Your task to perform on an android device: delete a single message in the gmail app Image 0: 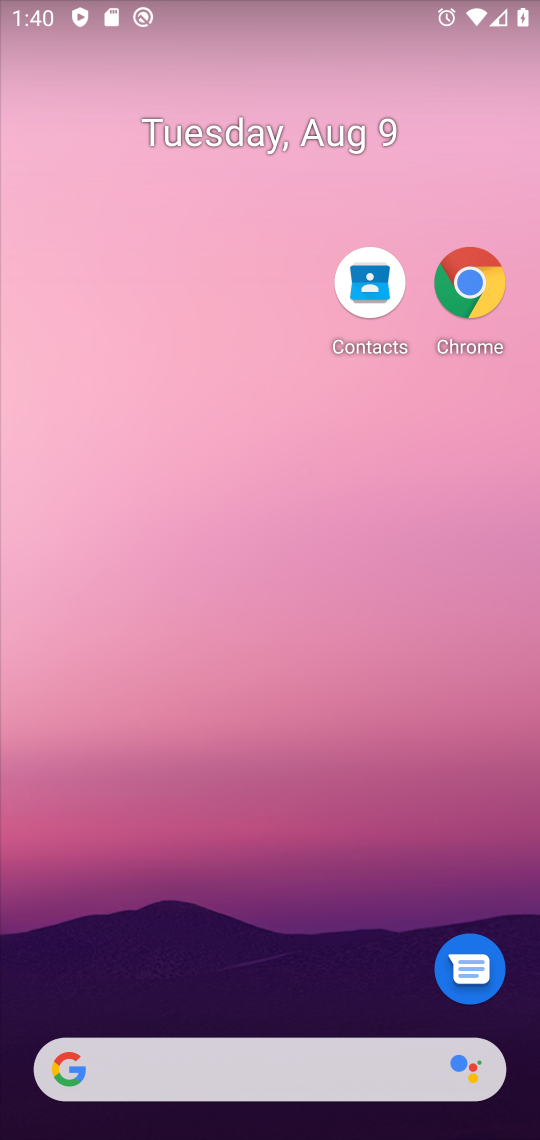
Step 0: drag from (232, 878) to (418, 270)
Your task to perform on an android device: delete a single message in the gmail app Image 1: 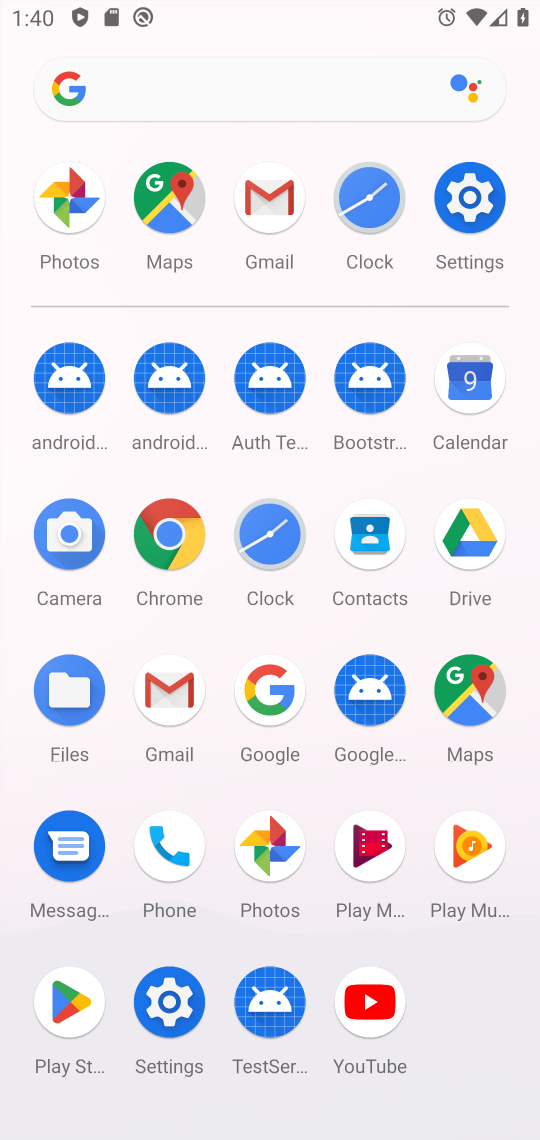
Step 1: click (164, 696)
Your task to perform on an android device: delete a single message in the gmail app Image 2: 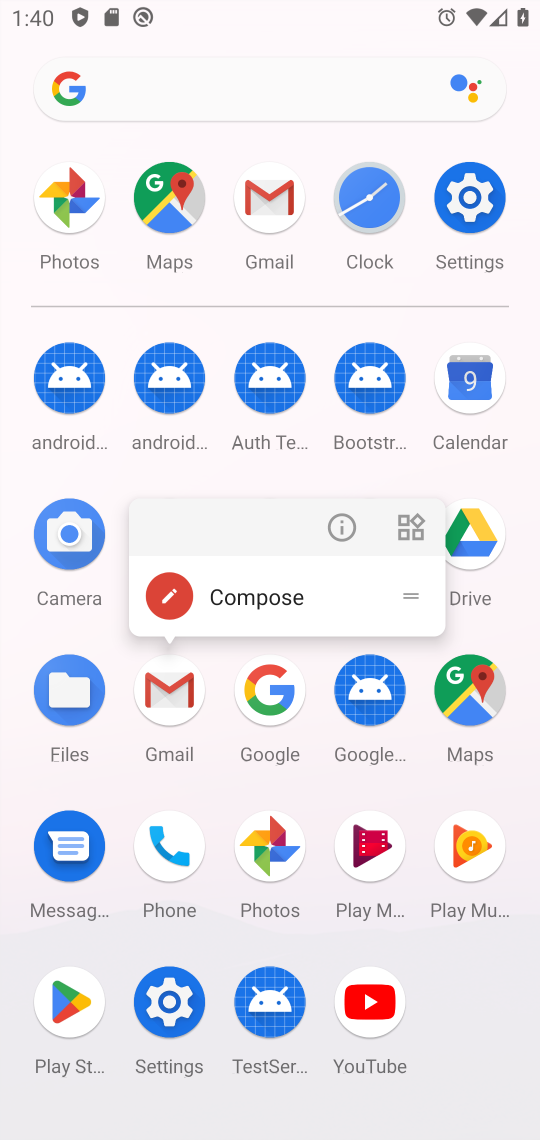
Step 2: click (343, 529)
Your task to perform on an android device: delete a single message in the gmail app Image 3: 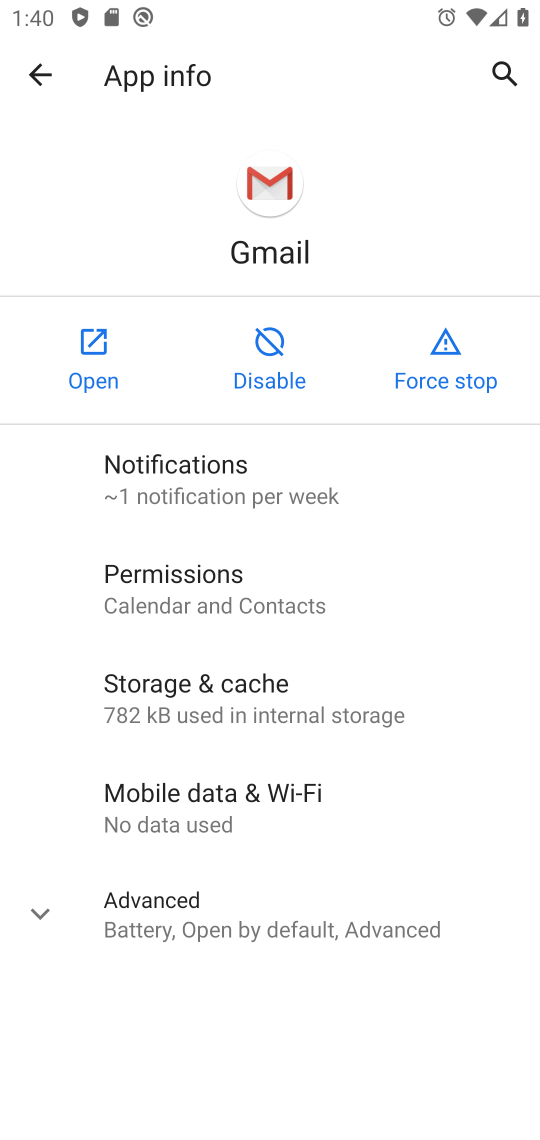
Step 3: click (87, 366)
Your task to perform on an android device: delete a single message in the gmail app Image 4: 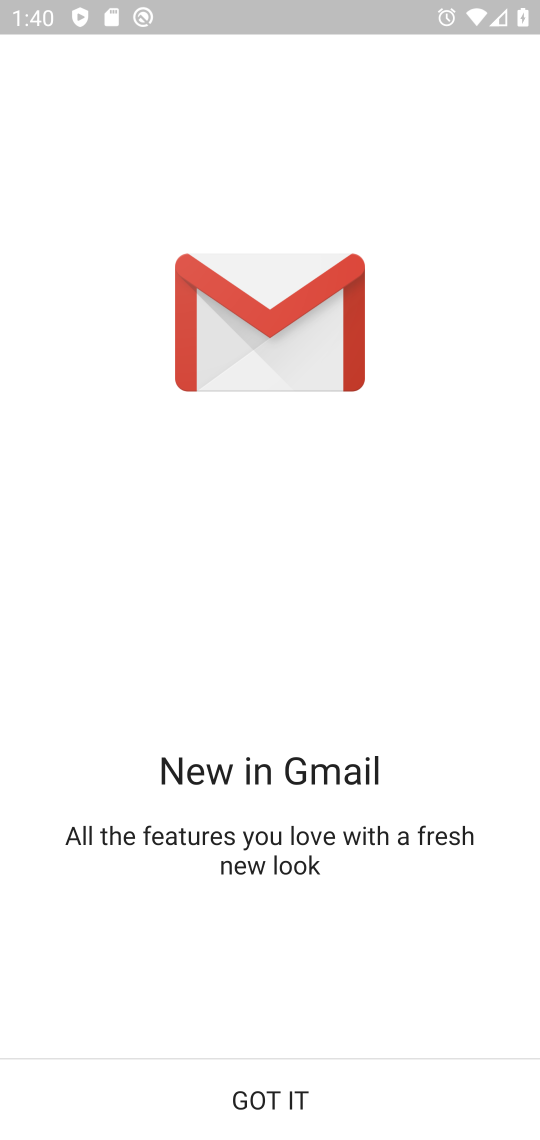
Step 4: drag from (323, 963) to (337, 804)
Your task to perform on an android device: delete a single message in the gmail app Image 5: 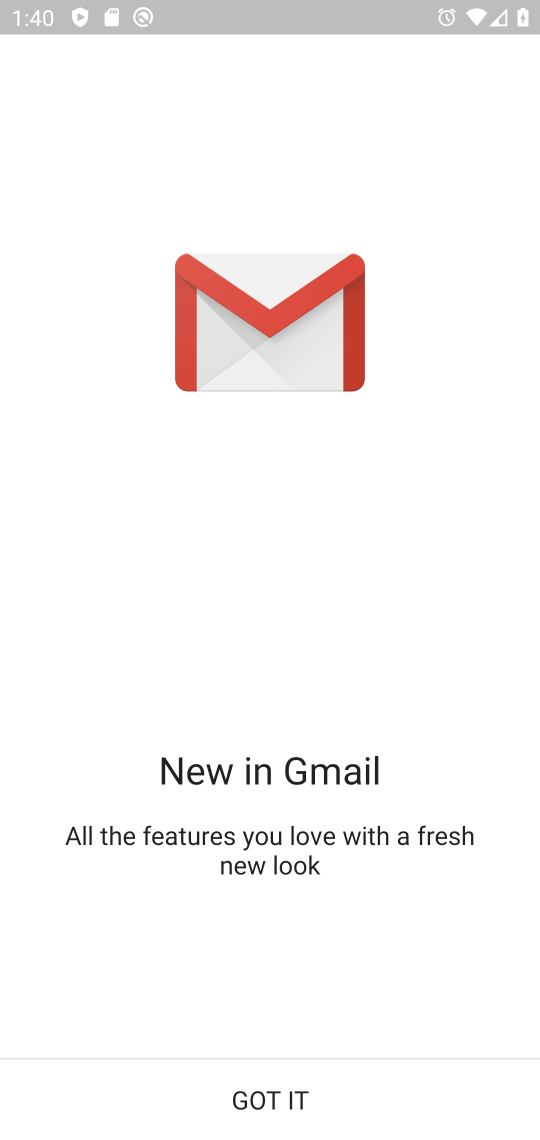
Step 5: click (236, 1100)
Your task to perform on an android device: delete a single message in the gmail app Image 6: 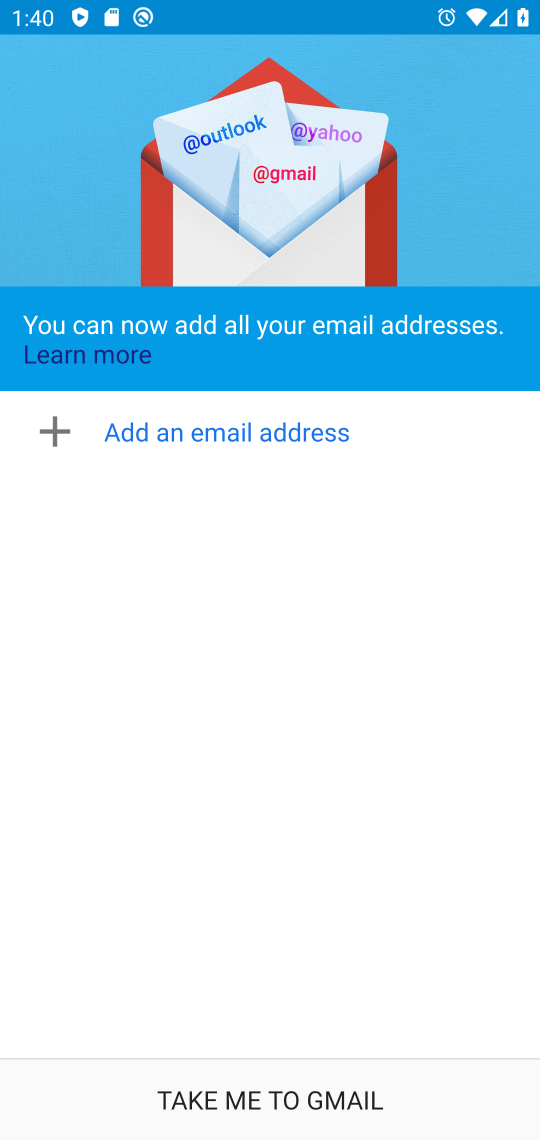
Step 6: click (281, 1075)
Your task to perform on an android device: delete a single message in the gmail app Image 7: 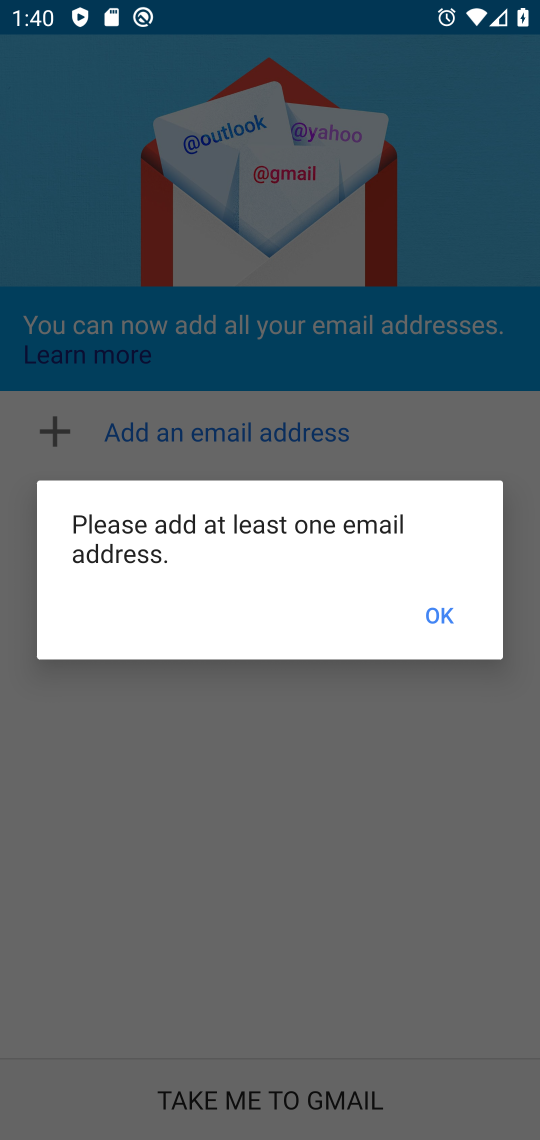
Step 7: click (438, 603)
Your task to perform on an android device: delete a single message in the gmail app Image 8: 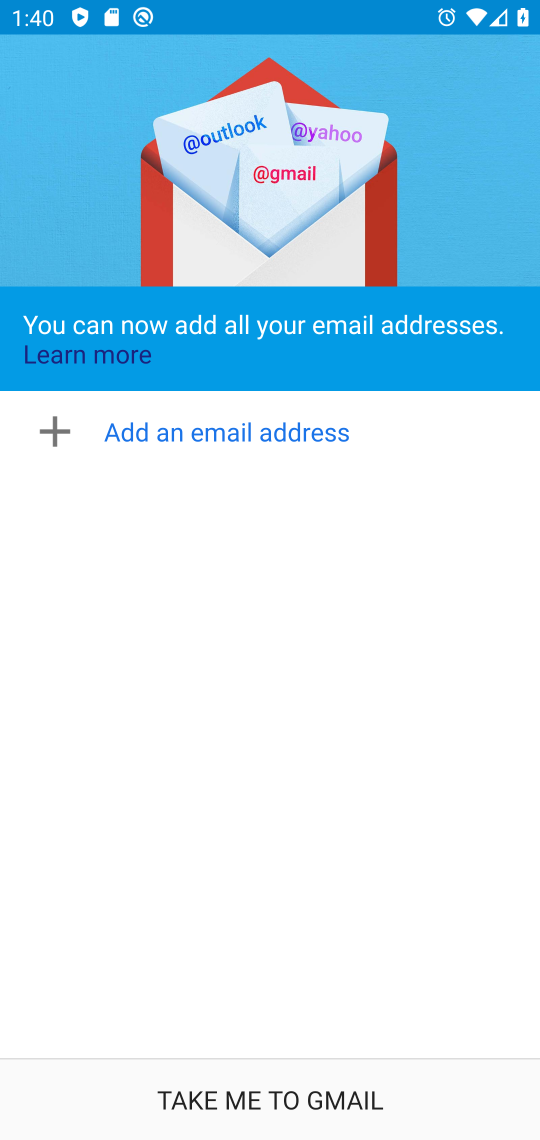
Step 8: task complete